Your task to perform on an android device: turn off sleep mode Image 0: 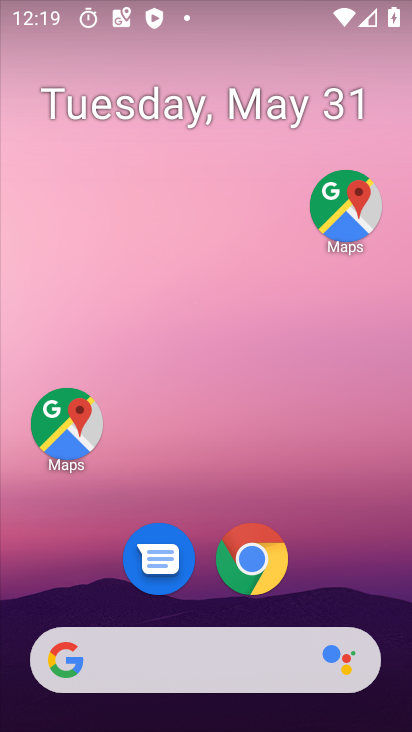
Step 0: drag from (316, 566) to (206, 2)
Your task to perform on an android device: turn off sleep mode Image 1: 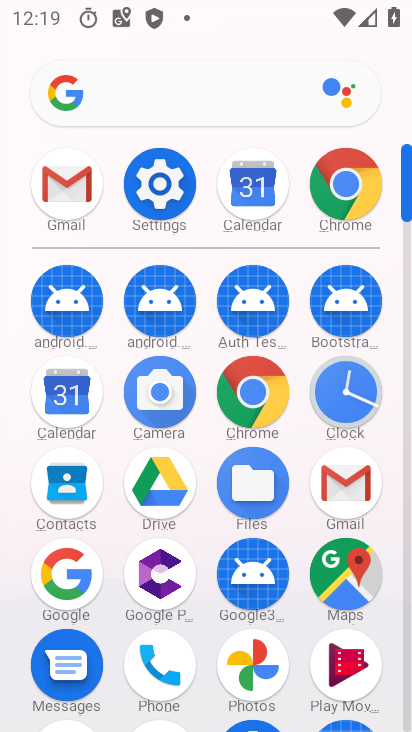
Step 1: click (168, 172)
Your task to perform on an android device: turn off sleep mode Image 2: 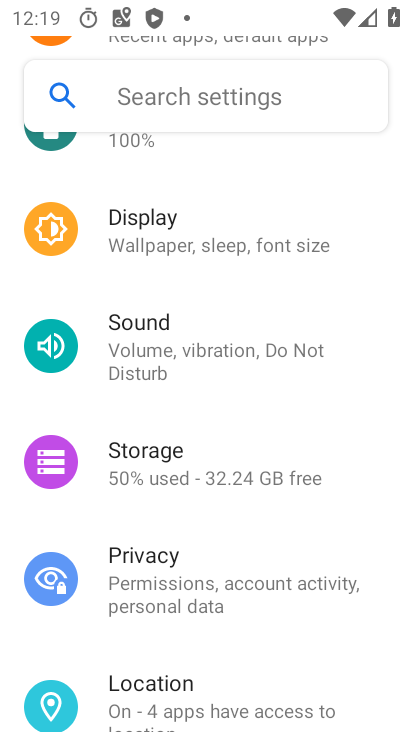
Step 2: click (232, 251)
Your task to perform on an android device: turn off sleep mode Image 3: 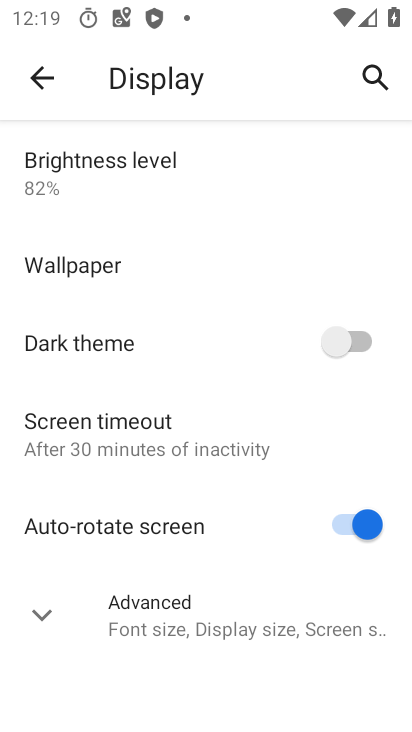
Step 3: click (206, 455)
Your task to perform on an android device: turn off sleep mode Image 4: 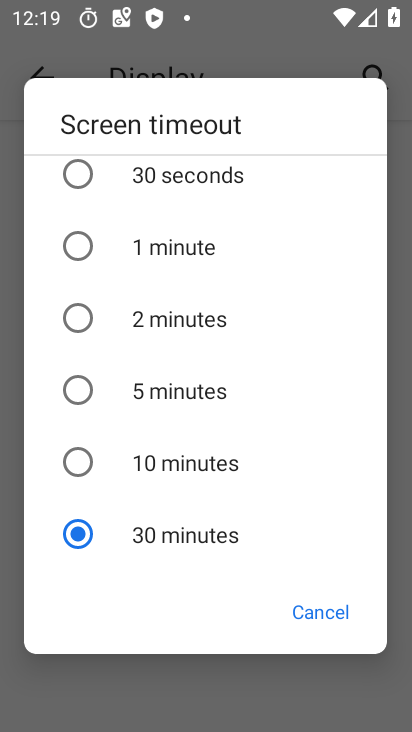
Step 4: task complete